Your task to perform on an android device: toggle javascript in the chrome app Image 0: 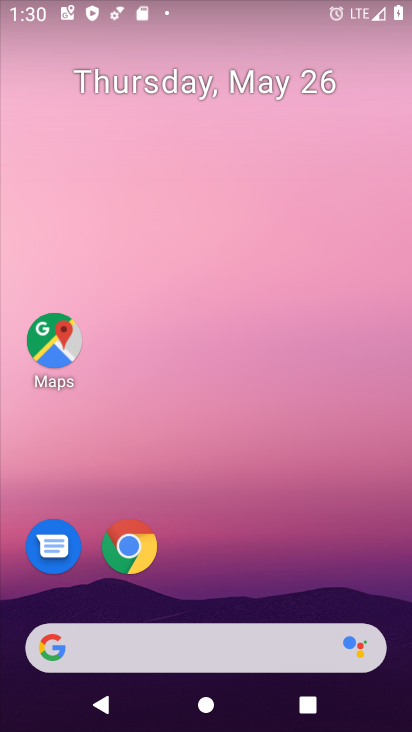
Step 0: drag from (372, 478) to (294, 212)
Your task to perform on an android device: toggle javascript in the chrome app Image 1: 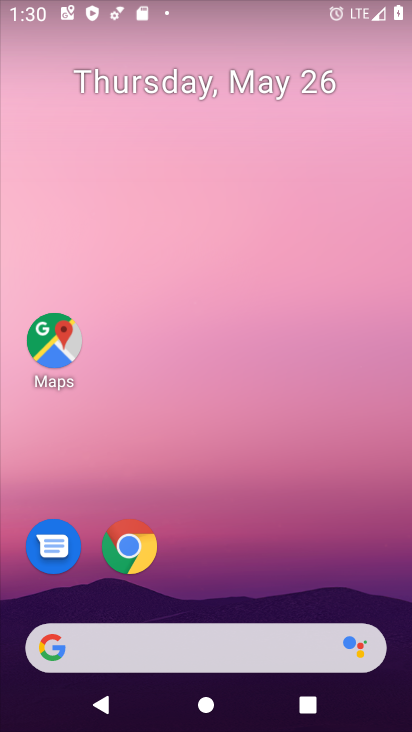
Step 1: drag from (398, 622) to (258, 71)
Your task to perform on an android device: toggle javascript in the chrome app Image 2: 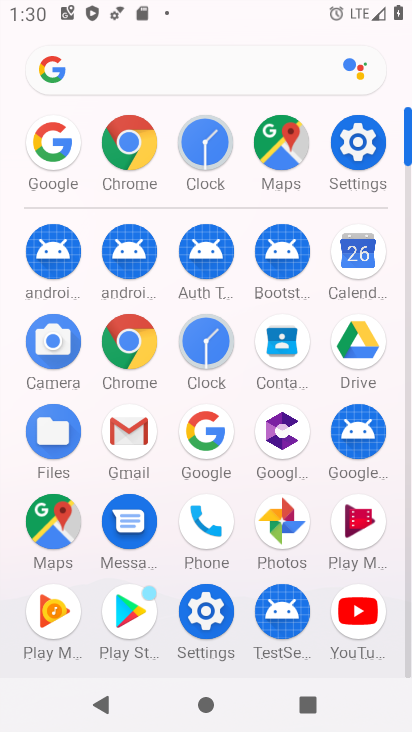
Step 2: click (114, 328)
Your task to perform on an android device: toggle javascript in the chrome app Image 3: 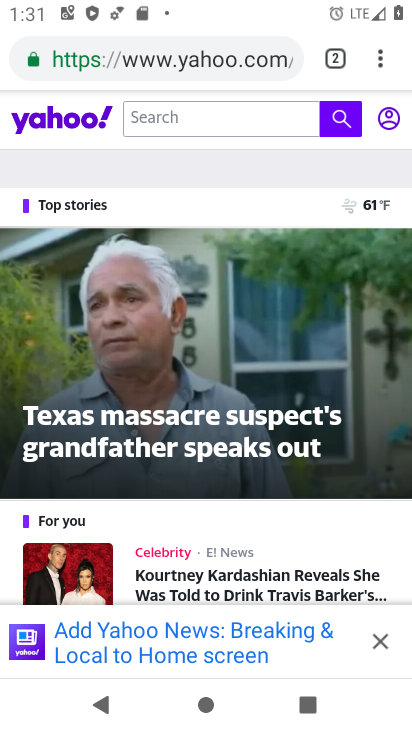
Step 3: press back button
Your task to perform on an android device: toggle javascript in the chrome app Image 4: 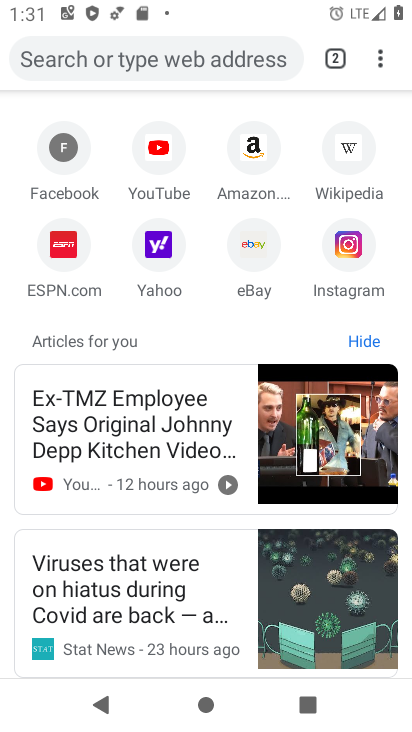
Step 4: click (379, 59)
Your task to perform on an android device: toggle javascript in the chrome app Image 5: 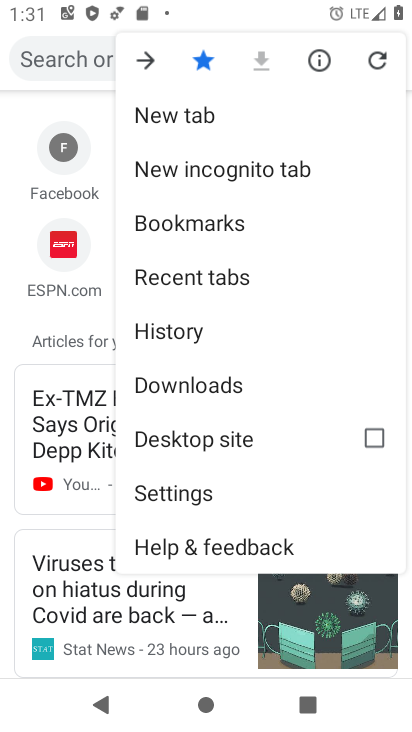
Step 5: click (195, 502)
Your task to perform on an android device: toggle javascript in the chrome app Image 6: 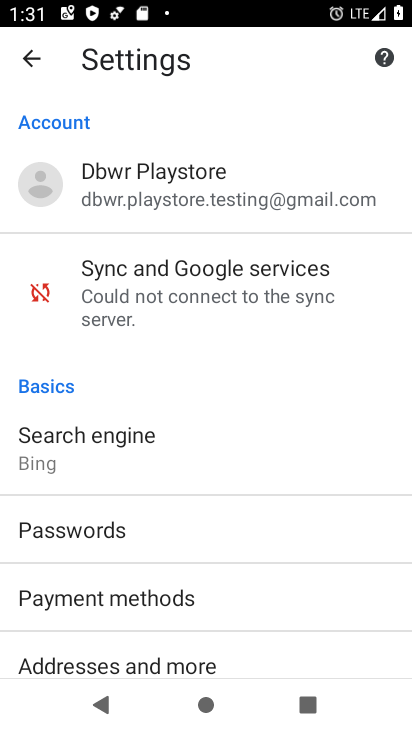
Step 6: drag from (175, 616) to (171, 87)
Your task to perform on an android device: toggle javascript in the chrome app Image 7: 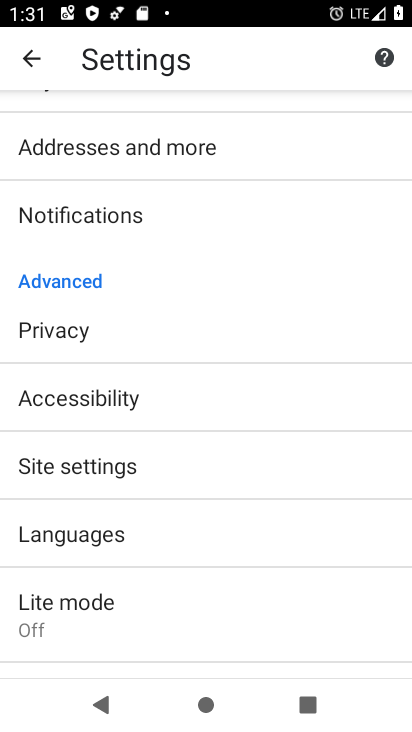
Step 7: click (129, 449)
Your task to perform on an android device: toggle javascript in the chrome app Image 8: 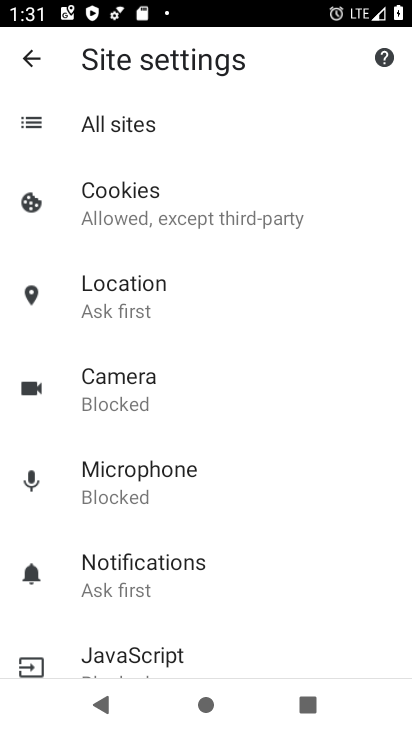
Step 8: click (161, 663)
Your task to perform on an android device: toggle javascript in the chrome app Image 9: 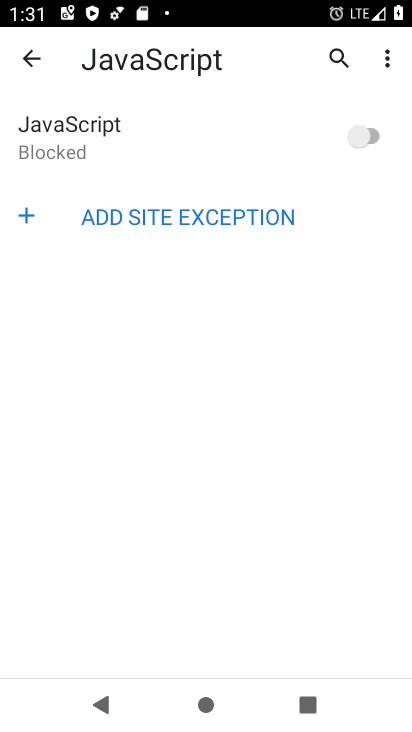
Step 9: click (362, 147)
Your task to perform on an android device: toggle javascript in the chrome app Image 10: 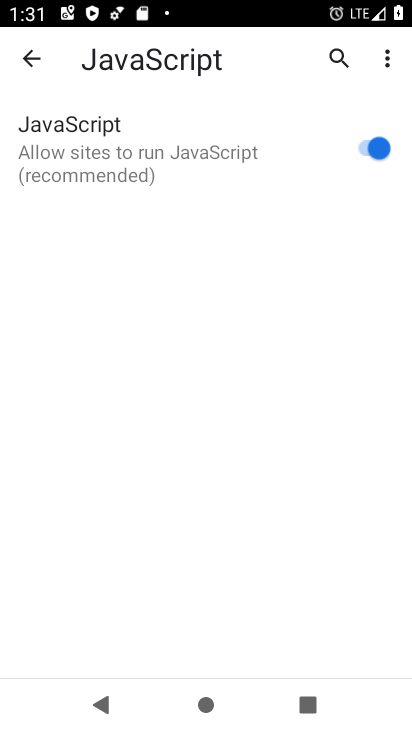
Step 10: task complete